Your task to perform on an android device: Show me productivity apps on the Play Store Image 0: 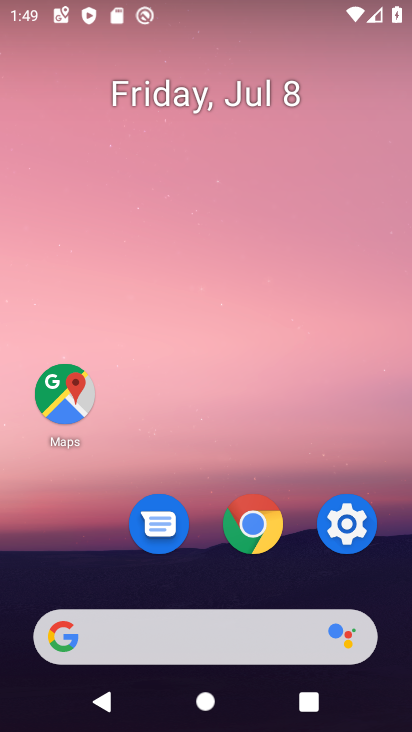
Step 0: drag from (213, 668) to (192, 249)
Your task to perform on an android device: Show me productivity apps on the Play Store Image 1: 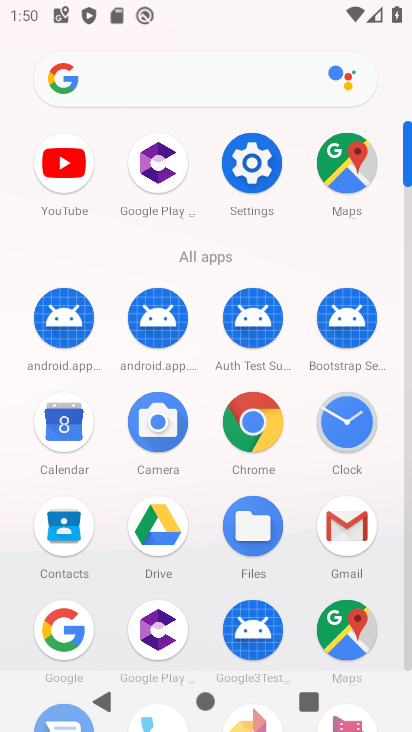
Step 1: drag from (104, 594) to (147, 341)
Your task to perform on an android device: Show me productivity apps on the Play Store Image 2: 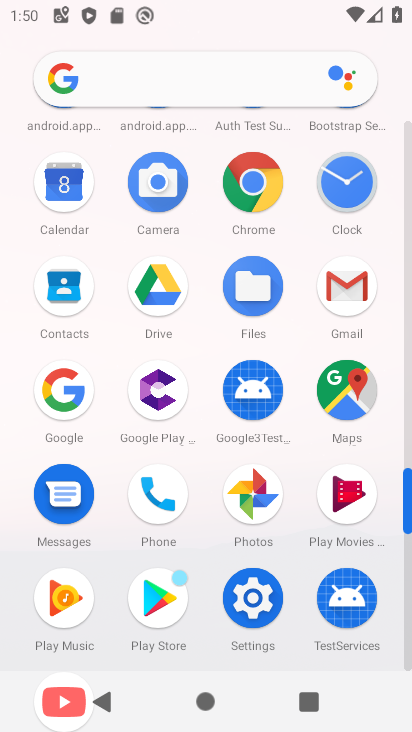
Step 2: click (182, 637)
Your task to perform on an android device: Show me productivity apps on the Play Store Image 3: 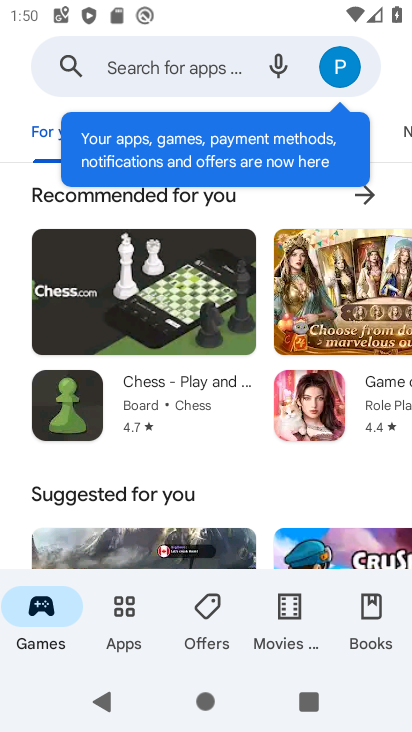
Step 3: click (216, 73)
Your task to perform on an android device: Show me productivity apps on the Play Store Image 4: 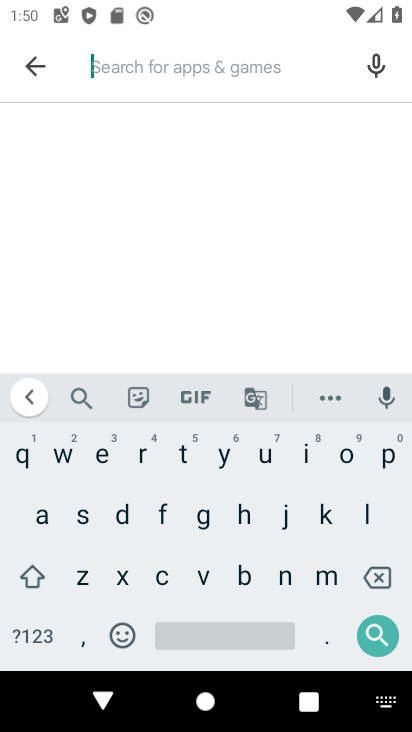
Step 4: click (386, 461)
Your task to perform on an android device: Show me productivity apps on the Play Store Image 5: 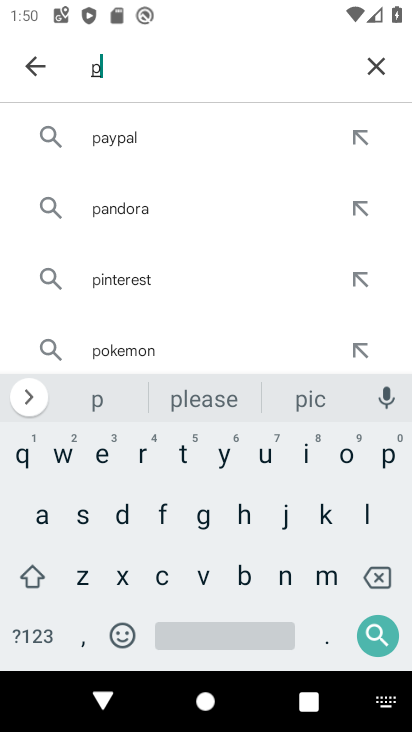
Step 5: click (141, 458)
Your task to perform on an android device: Show me productivity apps on the Play Store Image 6: 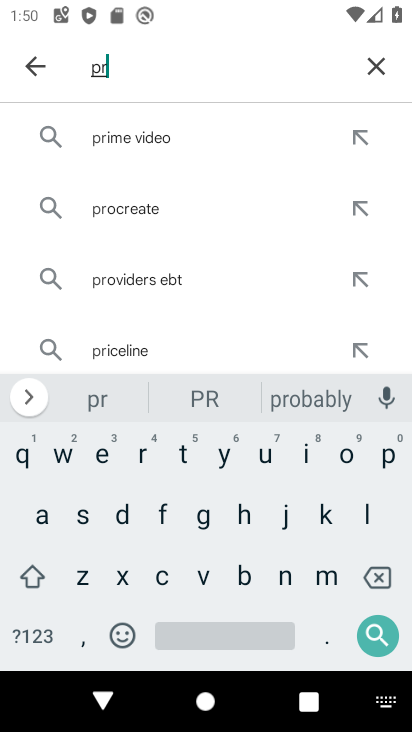
Step 6: click (342, 459)
Your task to perform on an android device: Show me productivity apps on the Play Store Image 7: 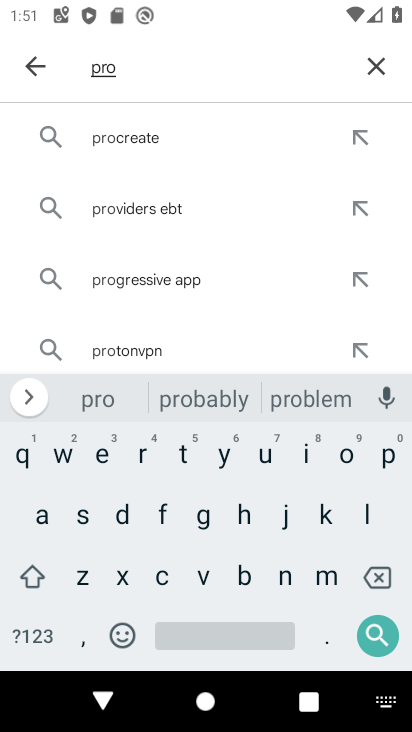
Step 7: click (122, 515)
Your task to perform on an android device: Show me productivity apps on the Play Store Image 8: 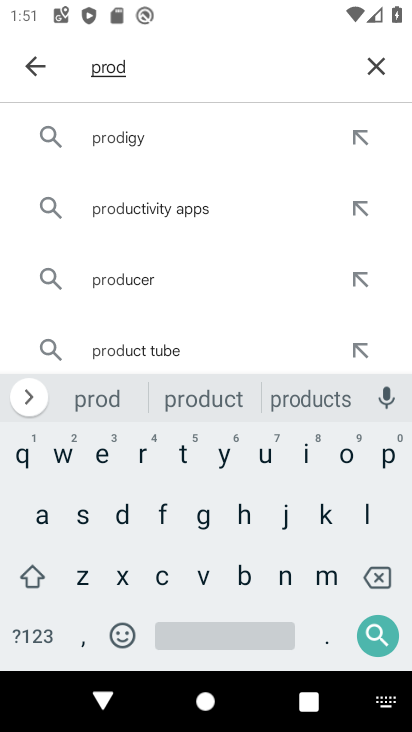
Step 8: click (183, 217)
Your task to perform on an android device: Show me productivity apps on the Play Store Image 9: 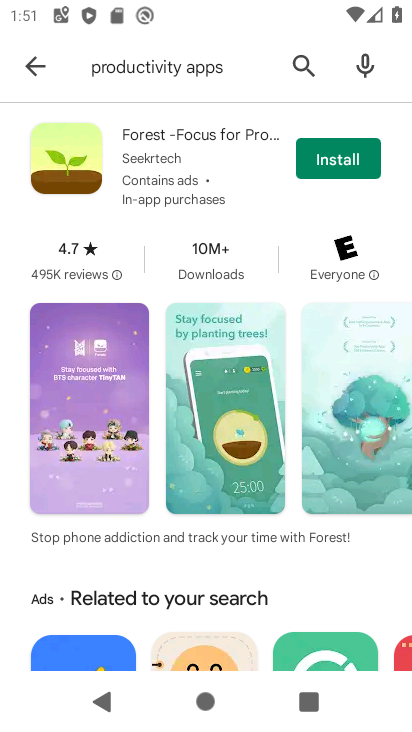
Step 9: task complete